Your task to perform on an android device: Show the shopping cart on walmart.com. Add "asus rog" to the cart on walmart.com, then select checkout. Image 0: 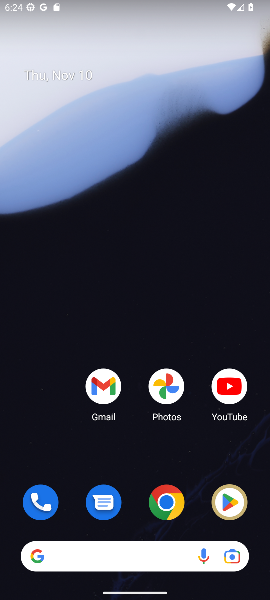
Step 0: drag from (134, 501) to (133, 182)
Your task to perform on an android device: Show the shopping cart on walmart.com. Add "asus rog" to the cart on walmart.com, then select checkout. Image 1: 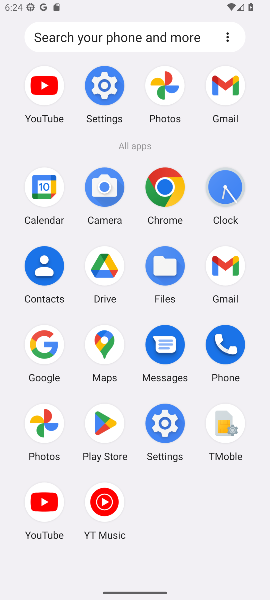
Step 1: click (42, 346)
Your task to perform on an android device: Show the shopping cart on walmart.com. Add "asus rog" to the cart on walmart.com, then select checkout. Image 2: 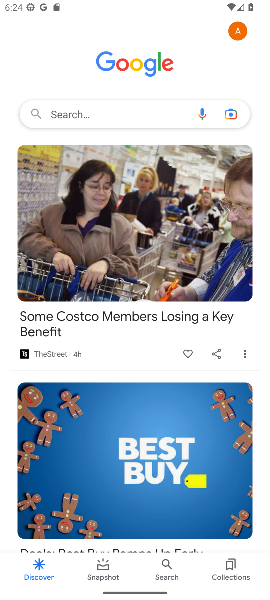
Step 2: click (132, 107)
Your task to perform on an android device: Show the shopping cart on walmart.com. Add "asus rog" to the cart on walmart.com, then select checkout. Image 3: 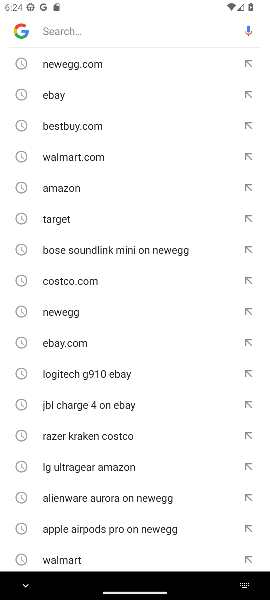
Step 3: type "walmart.com"
Your task to perform on an android device: Show the shopping cart on walmart.com. Add "asus rog" to the cart on walmart.com, then select checkout. Image 4: 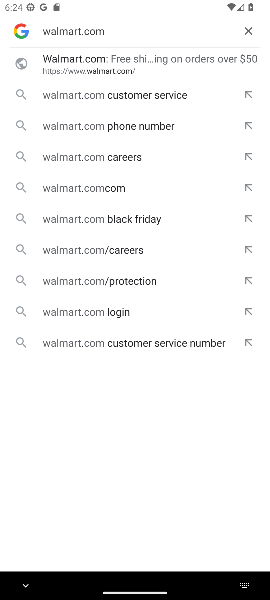
Step 4: click (74, 66)
Your task to perform on an android device: Show the shopping cart on walmart.com. Add "asus rog" to the cart on walmart.com, then select checkout. Image 5: 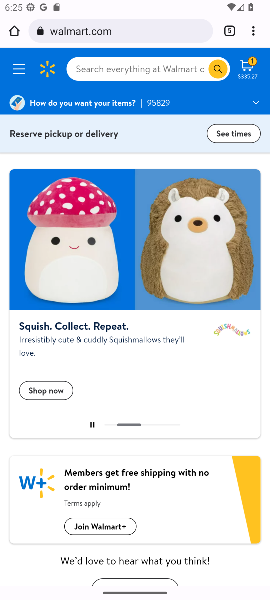
Step 5: click (243, 73)
Your task to perform on an android device: Show the shopping cart on walmart.com. Add "asus rog" to the cart on walmart.com, then select checkout. Image 6: 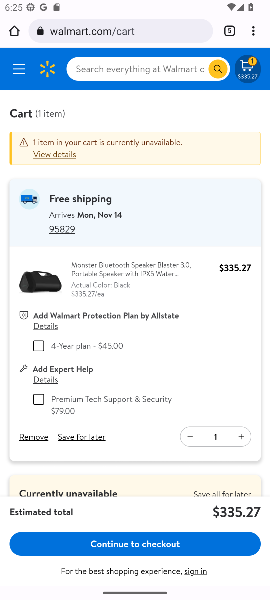
Step 6: click (137, 81)
Your task to perform on an android device: Show the shopping cart on walmart.com. Add "asus rog" to the cart on walmart.com, then select checkout. Image 7: 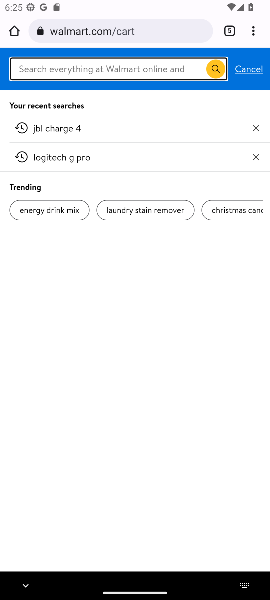
Step 7: type "asus rog"
Your task to perform on an android device: Show the shopping cart on walmart.com. Add "asus rog" to the cart on walmart.com, then select checkout. Image 8: 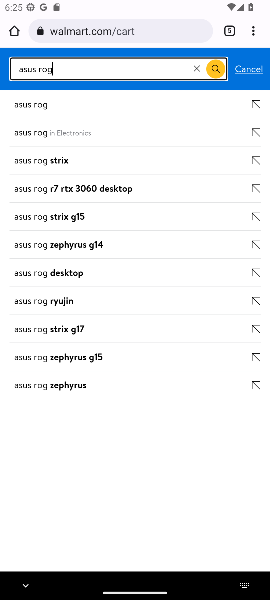
Step 8: click (34, 109)
Your task to perform on an android device: Show the shopping cart on walmart.com. Add "asus rog" to the cart on walmart.com, then select checkout. Image 9: 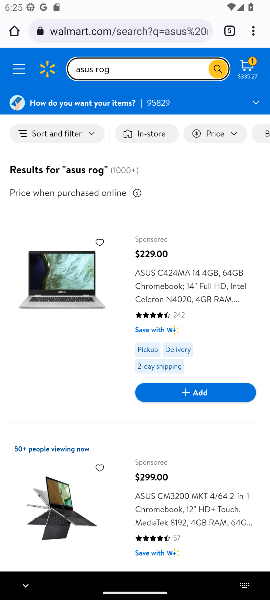
Step 9: click (184, 397)
Your task to perform on an android device: Show the shopping cart on walmart.com. Add "asus rog" to the cart on walmart.com, then select checkout. Image 10: 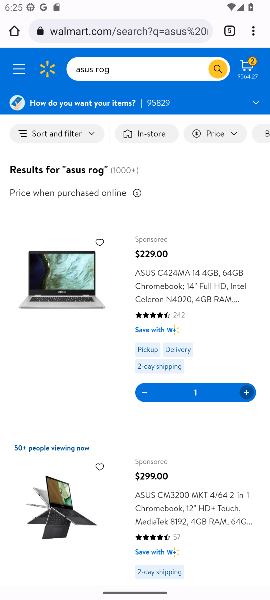
Step 10: click (249, 68)
Your task to perform on an android device: Show the shopping cart on walmart.com. Add "asus rog" to the cart on walmart.com, then select checkout. Image 11: 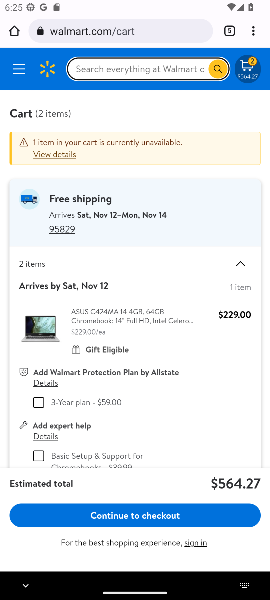
Step 11: click (121, 516)
Your task to perform on an android device: Show the shopping cart on walmart.com. Add "asus rog" to the cart on walmart.com, then select checkout. Image 12: 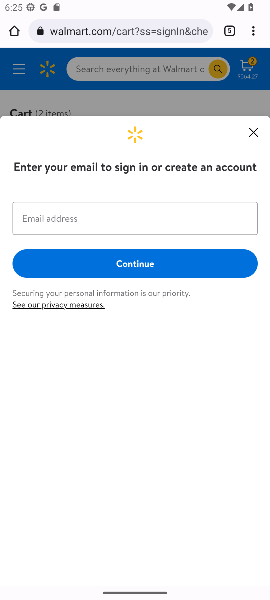
Step 12: task complete